Your task to perform on an android device: Search for dell xps on bestbuy.com, select the first entry, add it to the cart, then select checkout. Image 0: 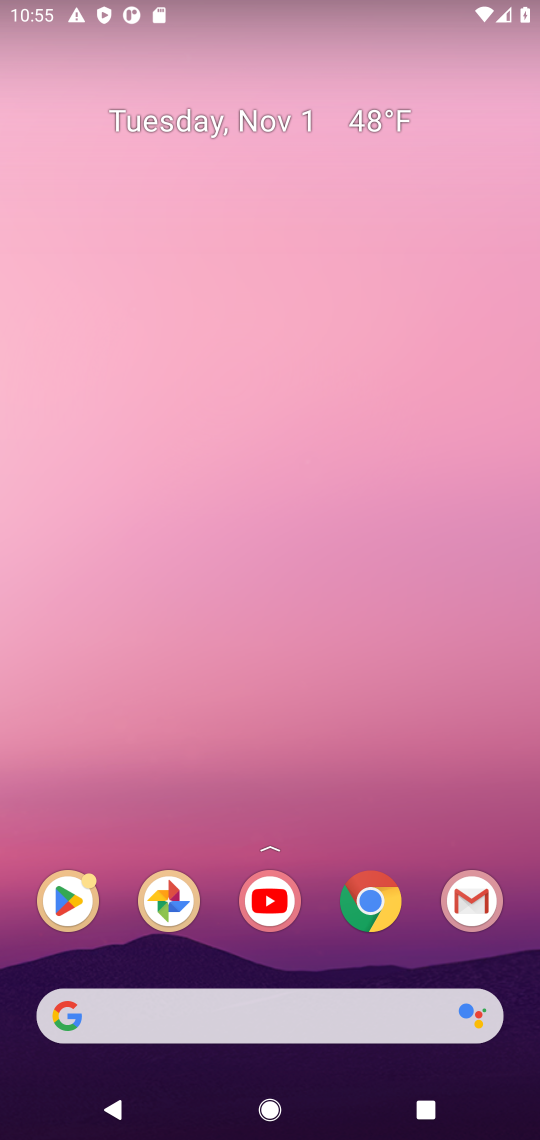
Step 0: drag from (308, 966) to (274, 115)
Your task to perform on an android device: Search for dell xps on bestbuy.com, select the first entry, add it to the cart, then select checkout. Image 1: 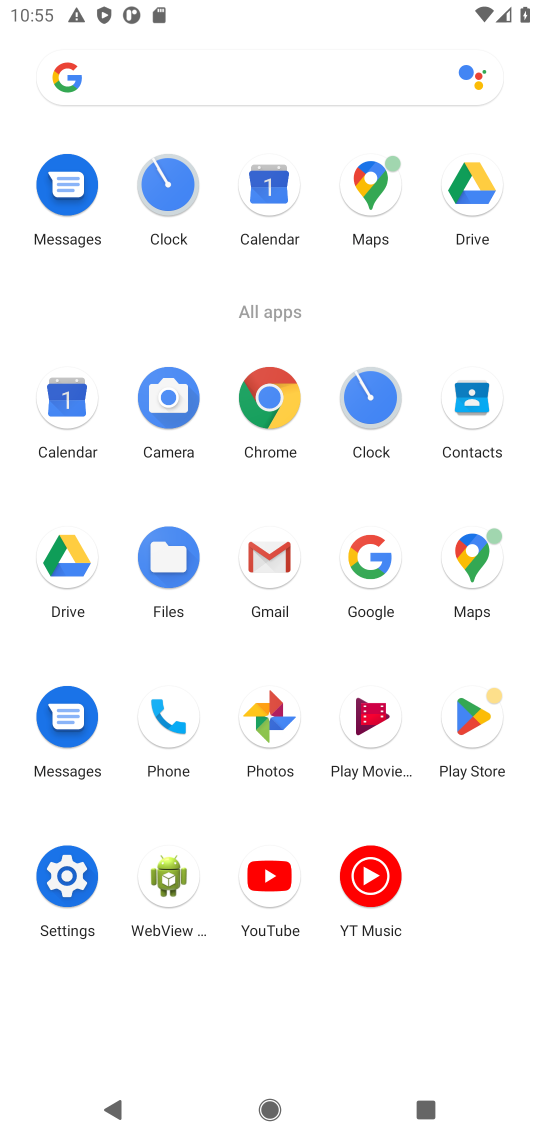
Step 1: click (273, 398)
Your task to perform on an android device: Search for dell xps on bestbuy.com, select the first entry, add it to the cart, then select checkout. Image 2: 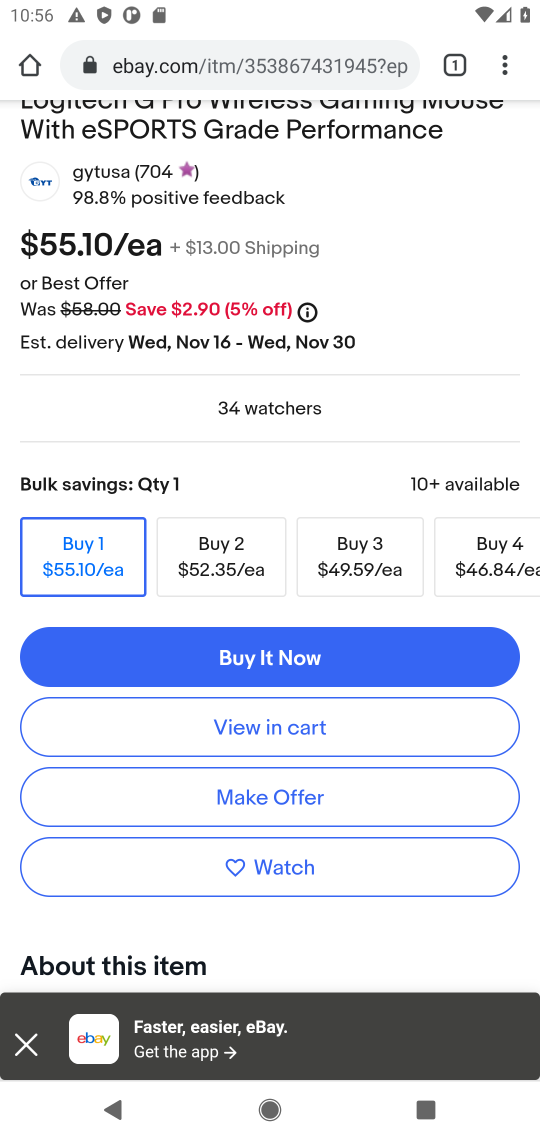
Step 2: click (340, 70)
Your task to perform on an android device: Search for dell xps on bestbuy.com, select the first entry, add it to the cart, then select checkout. Image 3: 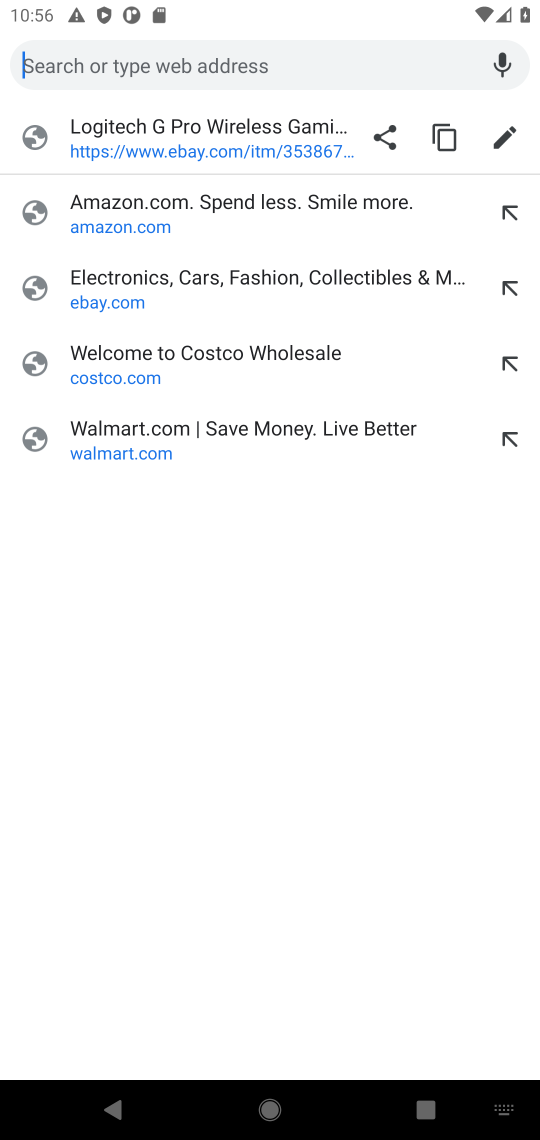
Step 3: type "bestbuy.com"
Your task to perform on an android device: Search for dell xps on bestbuy.com, select the first entry, add it to the cart, then select checkout. Image 4: 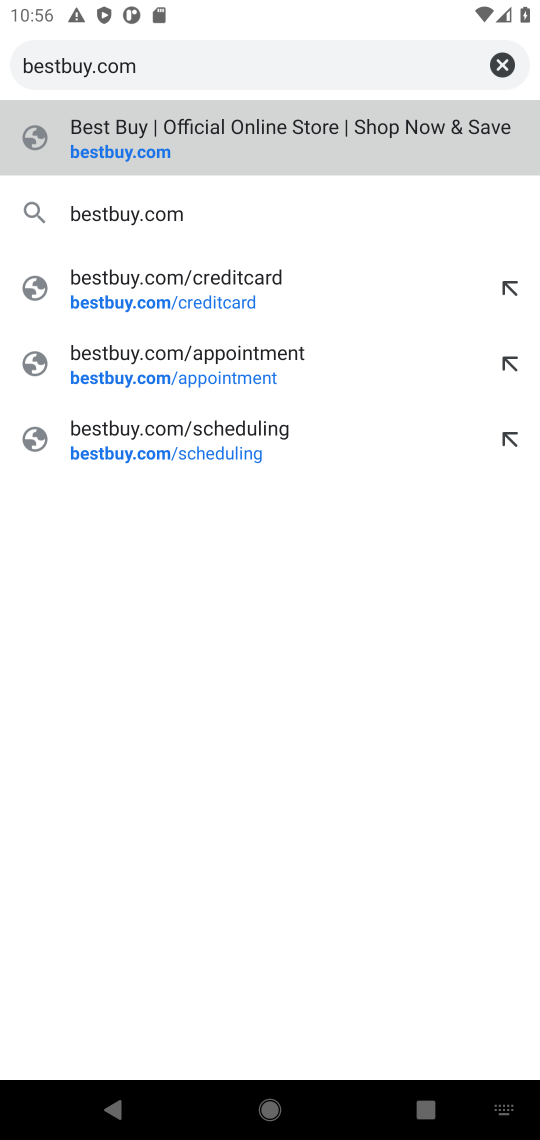
Step 4: press enter
Your task to perform on an android device: Search for dell xps on bestbuy.com, select the first entry, add it to the cart, then select checkout. Image 5: 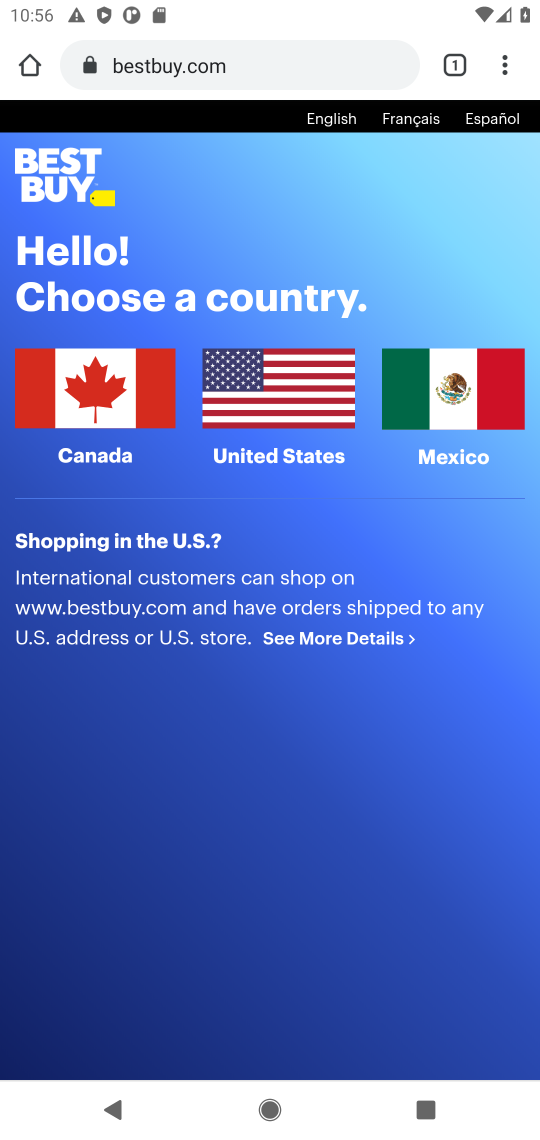
Step 5: click (90, 395)
Your task to perform on an android device: Search for dell xps on bestbuy.com, select the first entry, add it to the cart, then select checkout. Image 6: 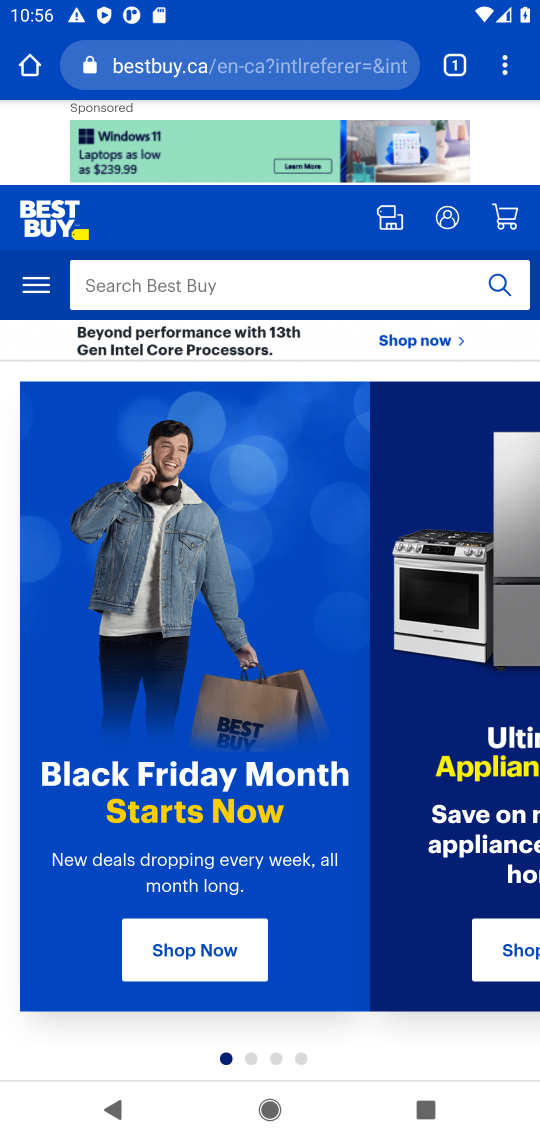
Step 6: click (200, 285)
Your task to perform on an android device: Search for dell xps on bestbuy.com, select the first entry, add it to the cart, then select checkout. Image 7: 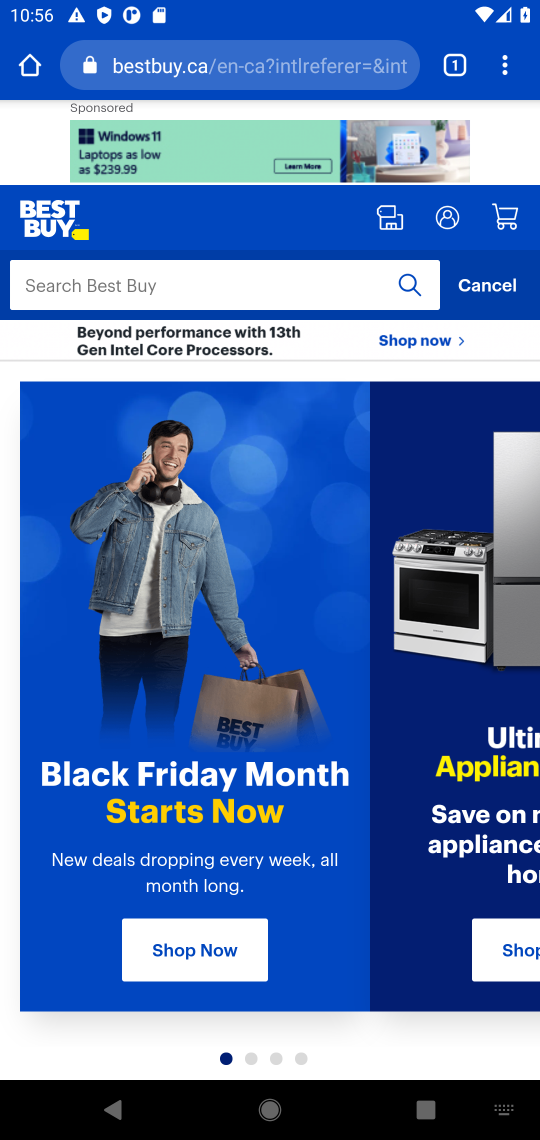
Step 7: type "dell xps"
Your task to perform on an android device: Search for dell xps on bestbuy.com, select the first entry, add it to the cart, then select checkout. Image 8: 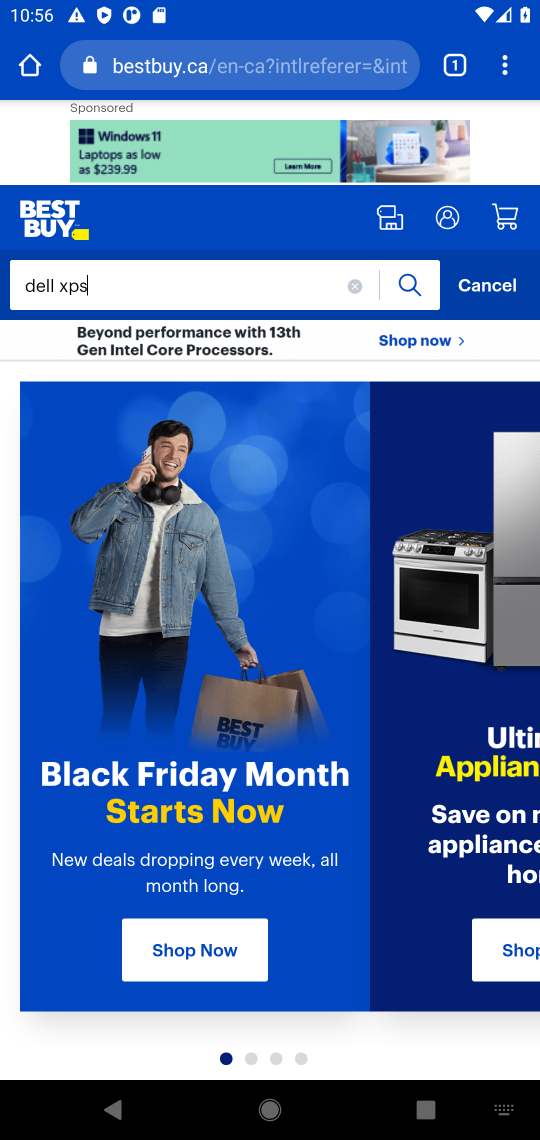
Step 8: press enter
Your task to perform on an android device: Search for dell xps on bestbuy.com, select the first entry, add it to the cart, then select checkout. Image 9: 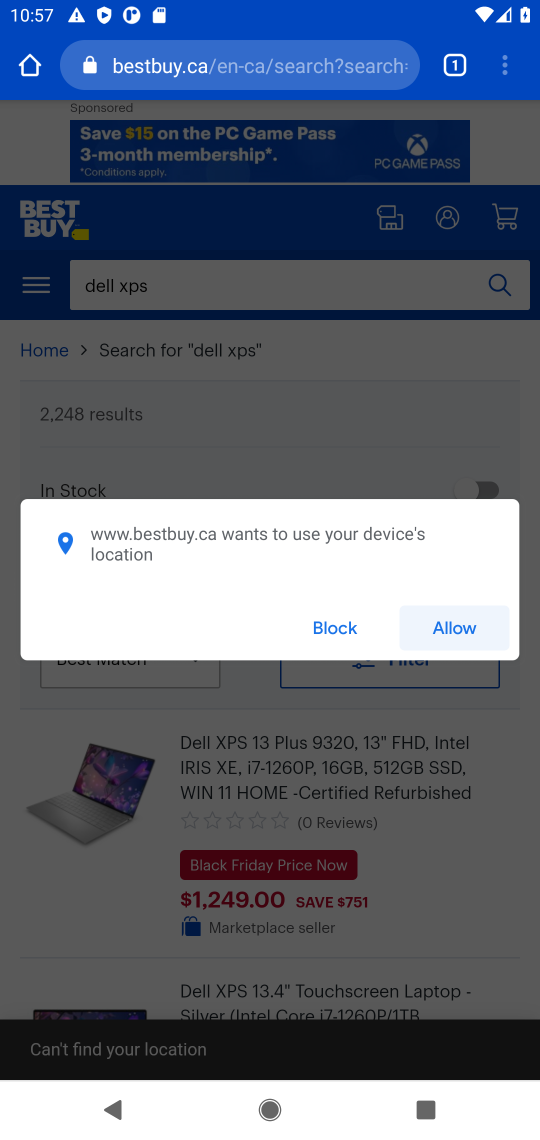
Step 9: click (336, 650)
Your task to perform on an android device: Search for dell xps on bestbuy.com, select the first entry, add it to the cart, then select checkout. Image 10: 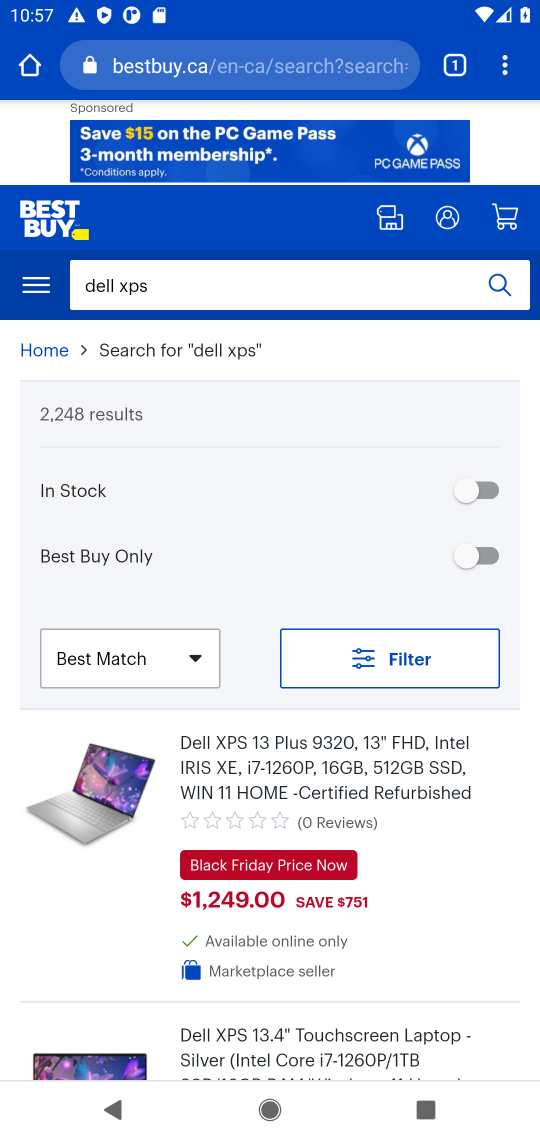
Step 10: drag from (440, 929) to (417, 374)
Your task to perform on an android device: Search for dell xps on bestbuy.com, select the first entry, add it to the cart, then select checkout. Image 11: 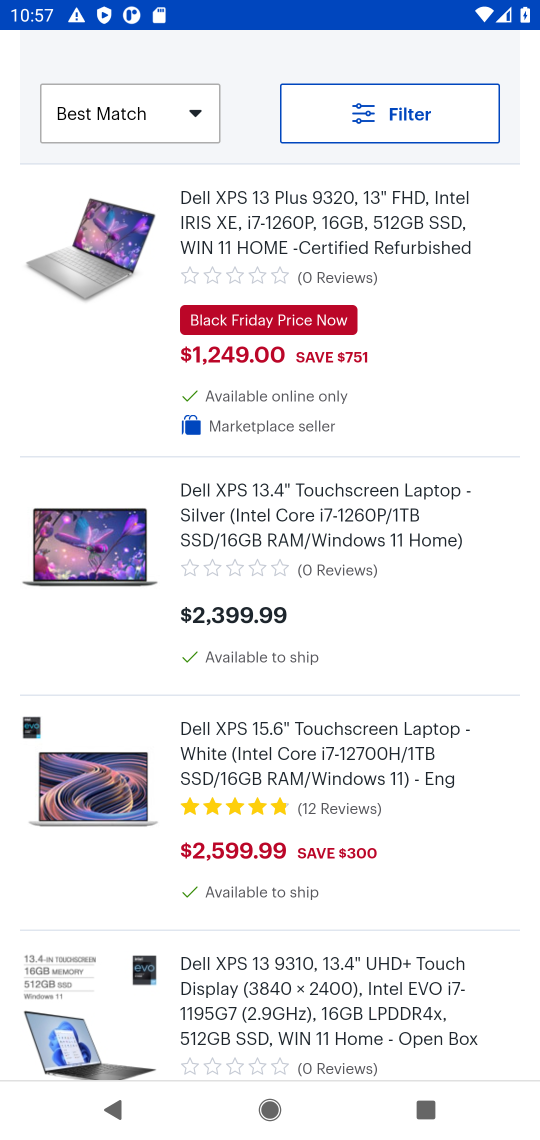
Step 11: click (277, 246)
Your task to perform on an android device: Search for dell xps on bestbuy.com, select the first entry, add it to the cart, then select checkout. Image 12: 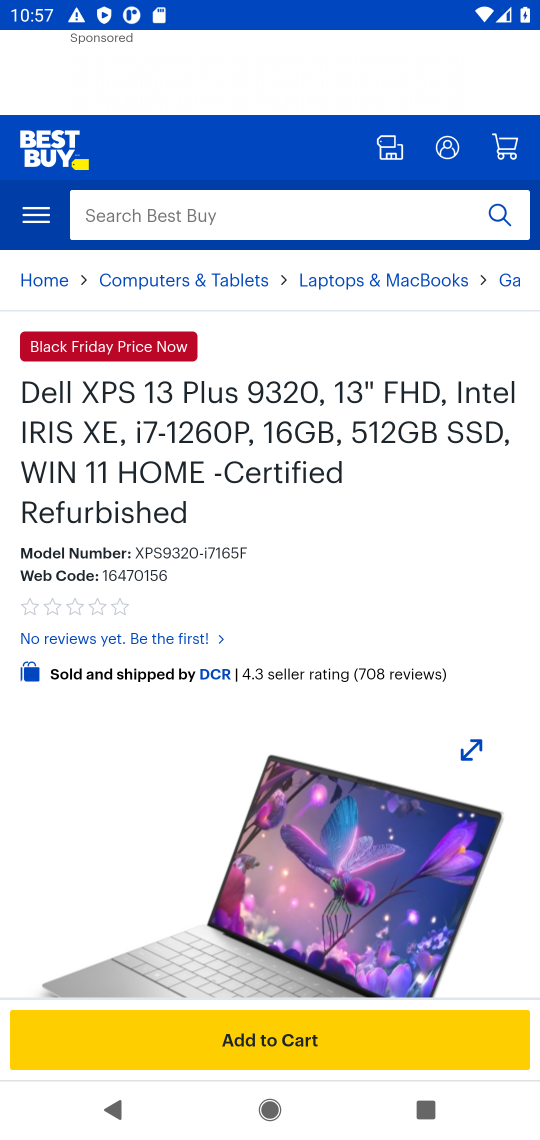
Step 12: drag from (255, 842) to (316, 135)
Your task to perform on an android device: Search for dell xps on bestbuy.com, select the first entry, add it to the cart, then select checkout. Image 13: 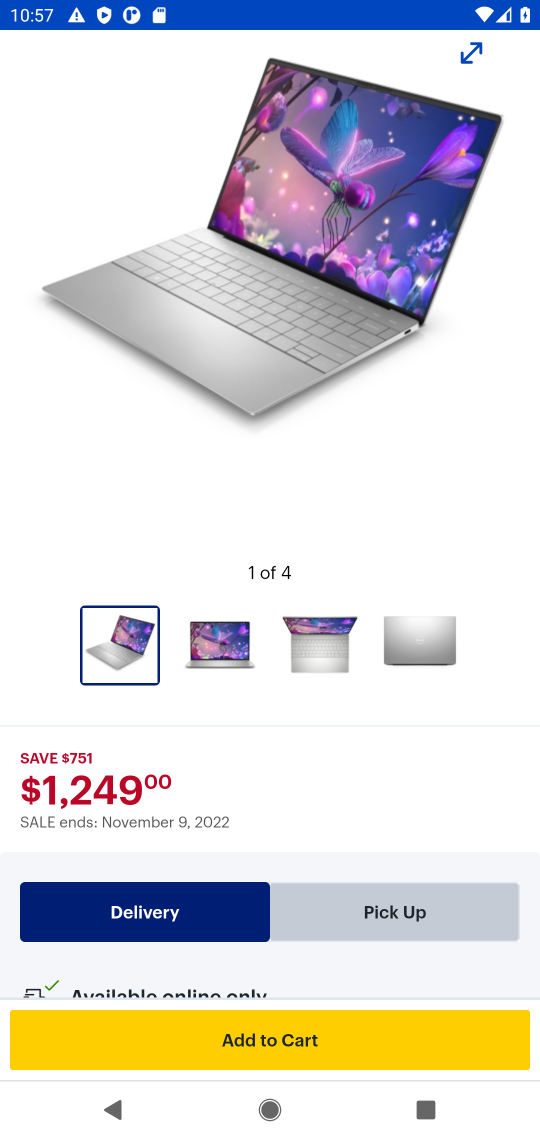
Step 13: click (351, 1046)
Your task to perform on an android device: Search for dell xps on bestbuy.com, select the first entry, add it to the cart, then select checkout. Image 14: 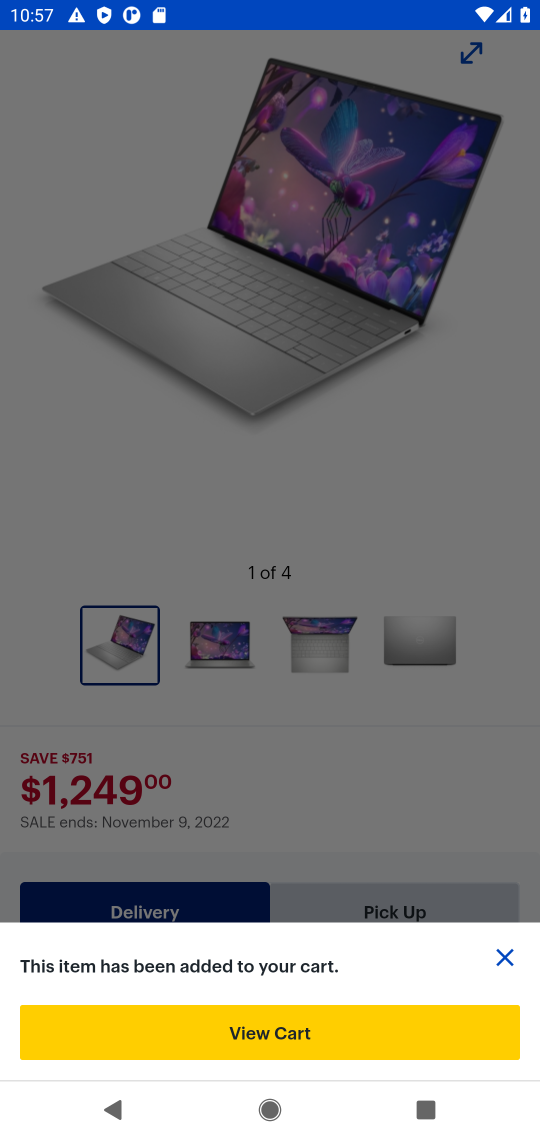
Step 14: click (262, 1036)
Your task to perform on an android device: Search for dell xps on bestbuy.com, select the first entry, add it to the cart, then select checkout. Image 15: 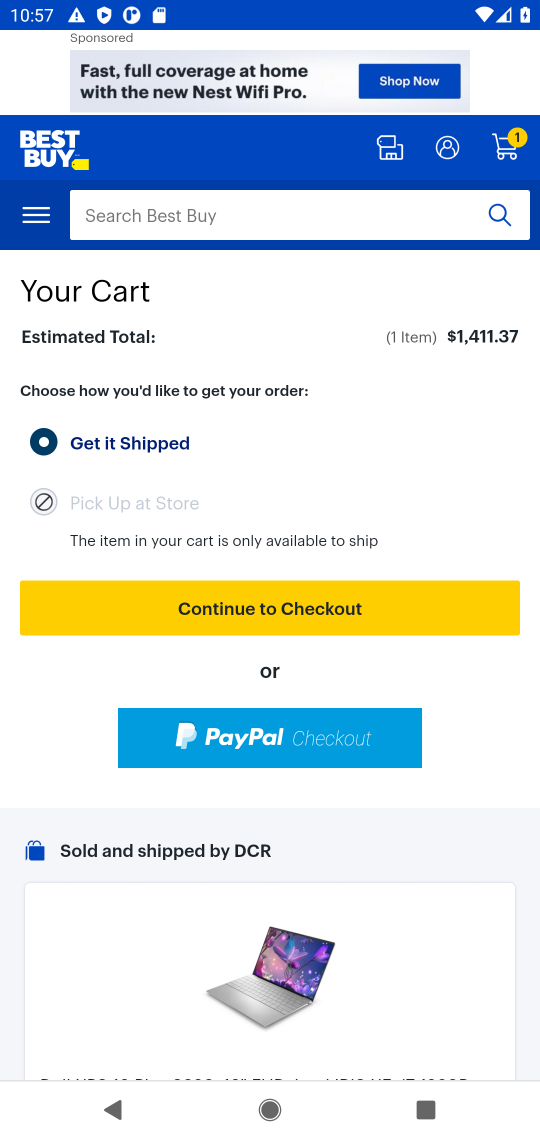
Step 15: click (312, 611)
Your task to perform on an android device: Search for dell xps on bestbuy.com, select the first entry, add it to the cart, then select checkout. Image 16: 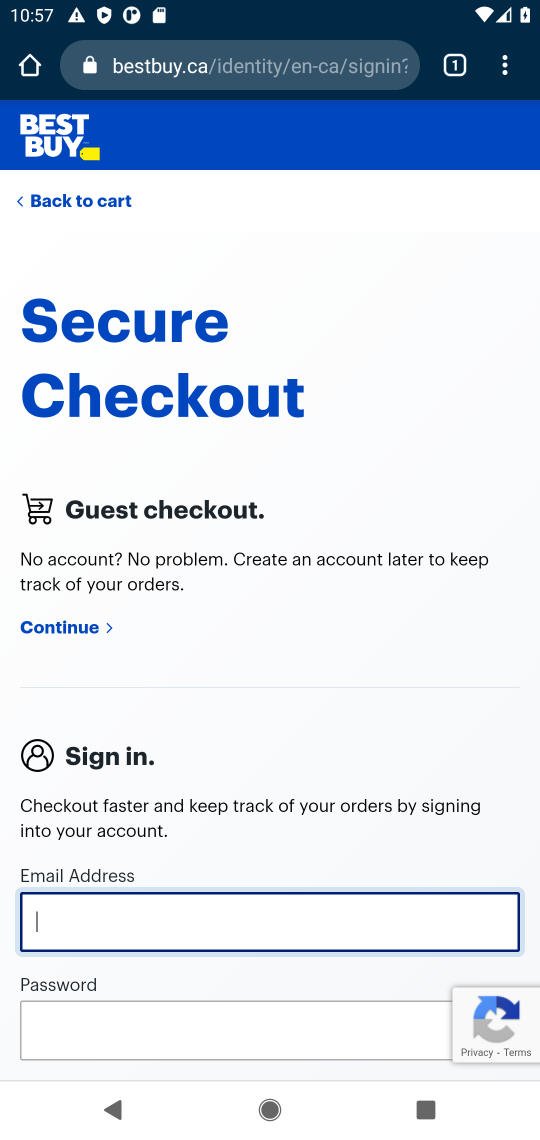
Step 16: task complete